Your task to perform on an android device: turn pop-ups off in chrome Image 0: 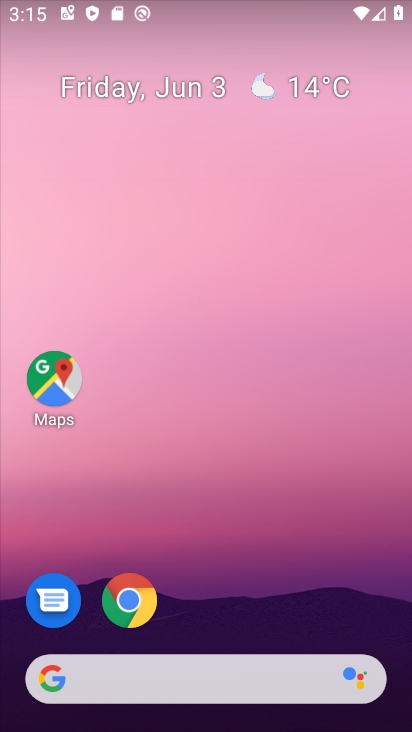
Step 0: click (135, 593)
Your task to perform on an android device: turn pop-ups off in chrome Image 1: 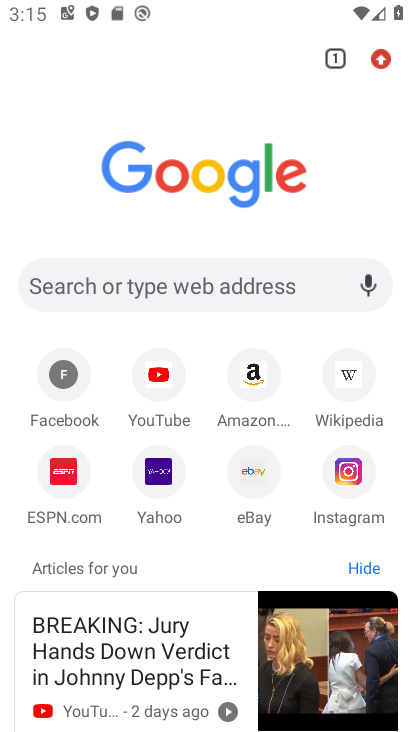
Step 1: click (379, 56)
Your task to perform on an android device: turn pop-ups off in chrome Image 2: 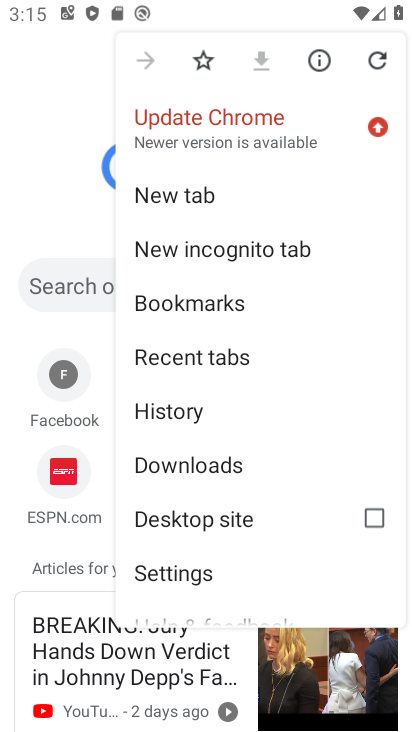
Step 2: click (204, 561)
Your task to perform on an android device: turn pop-ups off in chrome Image 3: 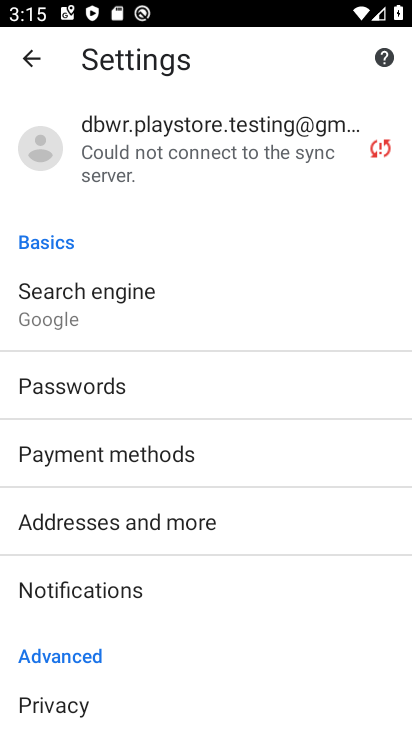
Step 3: drag from (235, 636) to (217, 298)
Your task to perform on an android device: turn pop-ups off in chrome Image 4: 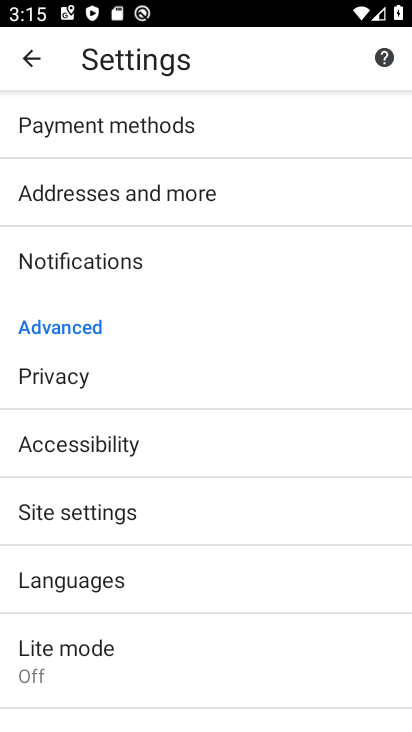
Step 4: click (86, 522)
Your task to perform on an android device: turn pop-ups off in chrome Image 5: 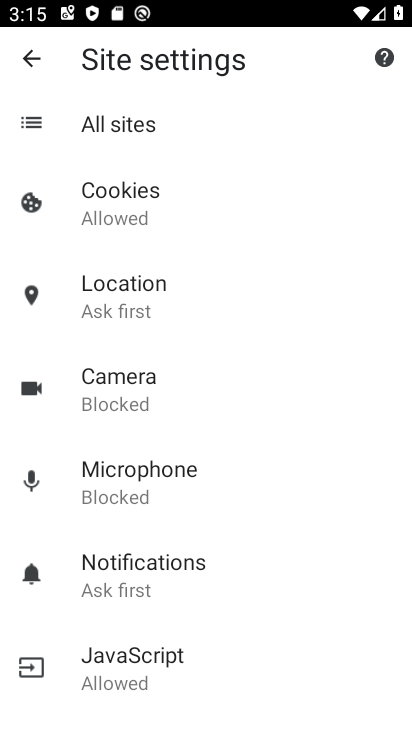
Step 5: drag from (164, 654) to (180, 309)
Your task to perform on an android device: turn pop-ups off in chrome Image 6: 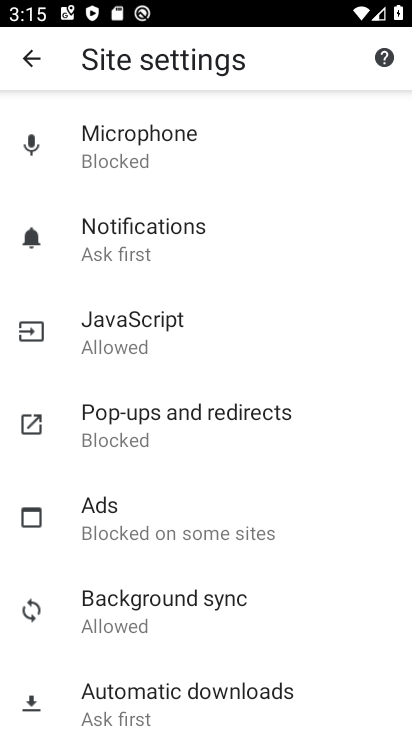
Step 6: click (175, 404)
Your task to perform on an android device: turn pop-ups off in chrome Image 7: 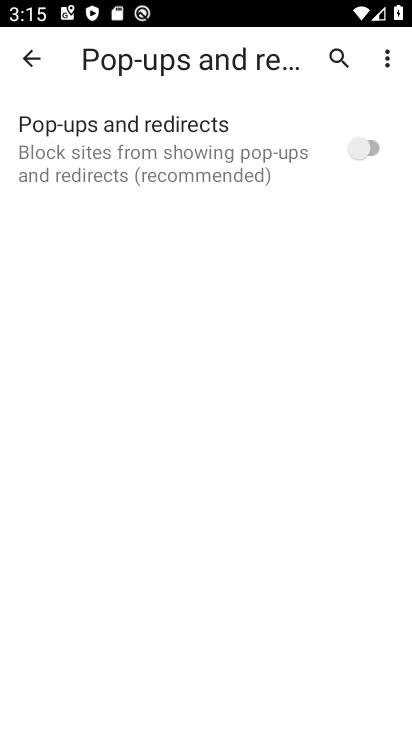
Step 7: task complete